Your task to perform on an android device: Search for seafood restaurants on Google Maps Image 0: 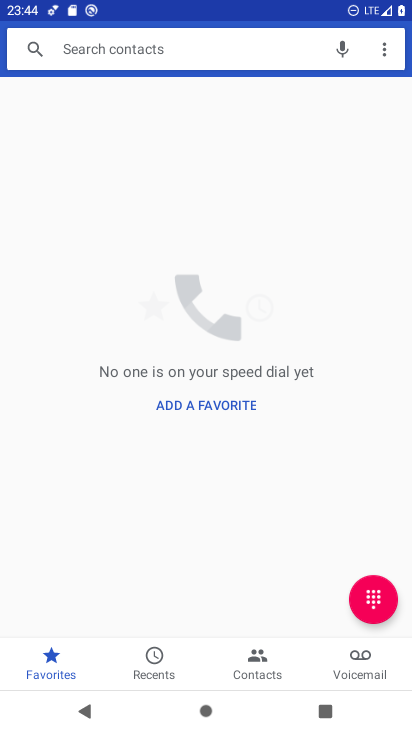
Step 0: press home button
Your task to perform on an android device: Search for seafood restaurants on Google Maps Image 1: 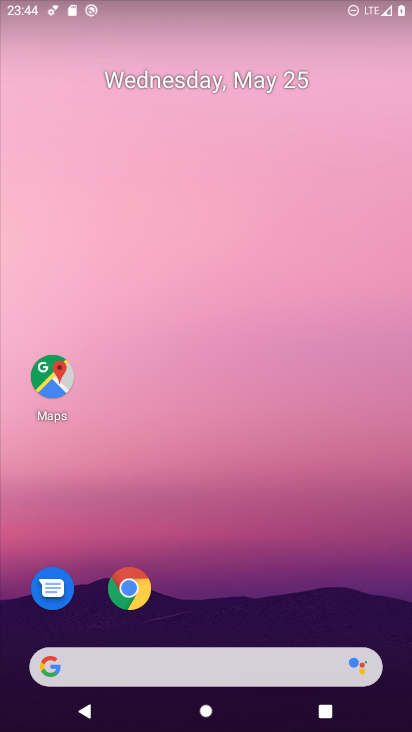
Step 1: click (46, 375)
Your task to perform on an android device: Search for seafood restaurants on Google Maps Image 2: 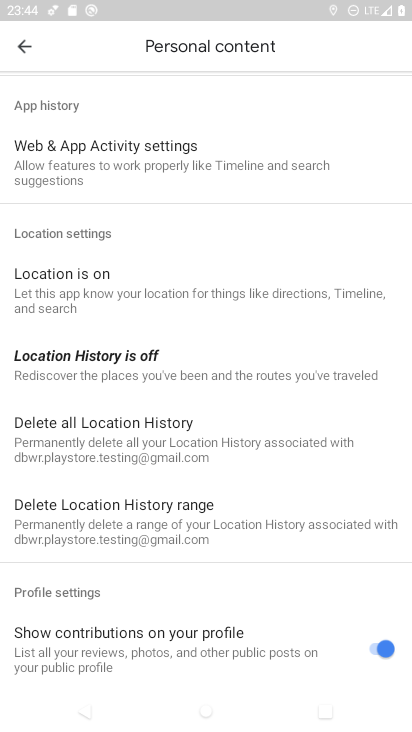
Step 2: click (28, 45)
Your task to perform on an android device: Search for seafood restaurants on Google Maps Image 3: 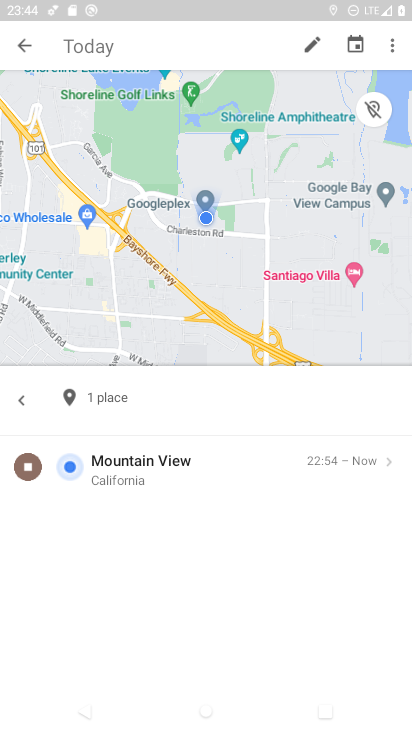
Step 3: click (168, 38)
Your task to perform on an android device: Search for seafood restaurants on Google Maps Image 4: 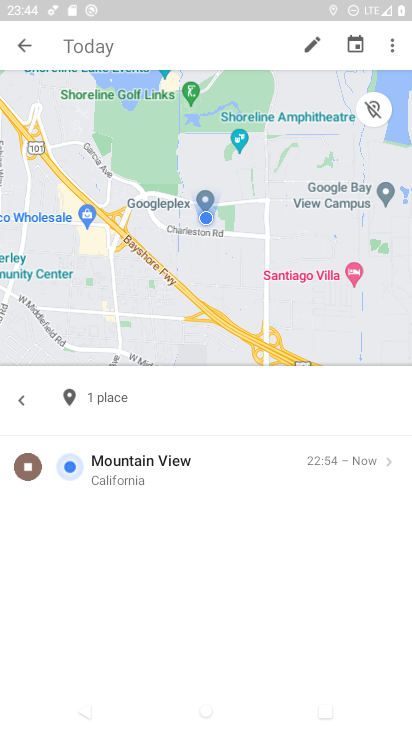
Step 4: click (96, 43)
Your task to perform on an android device: Search for seafood restaurants on Google Maps Image 5: 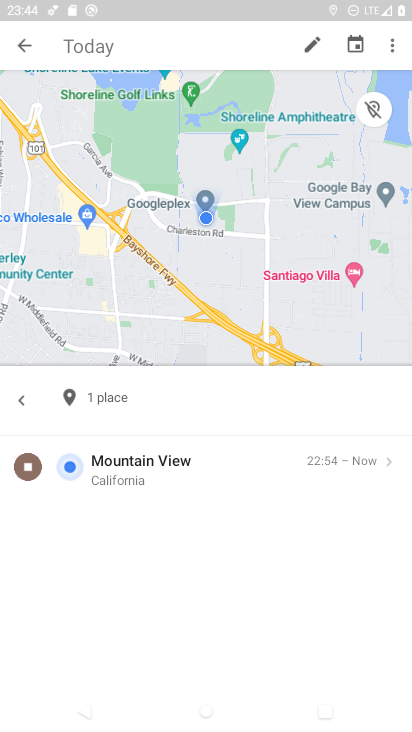
Step 5: click (26, 44)
Your task to perform on an android device: Search for seafood restaurants on Google Maps Image 6: 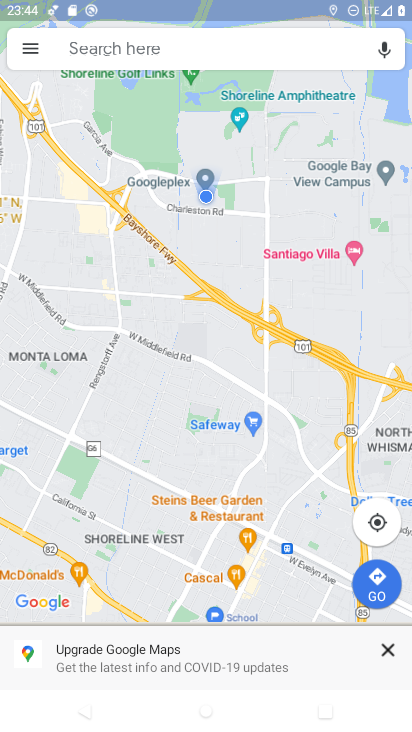
Step 6: click (140, 43)
Your task to perform on an android device: Search for seafood restaurants on Google Maps Image 7: 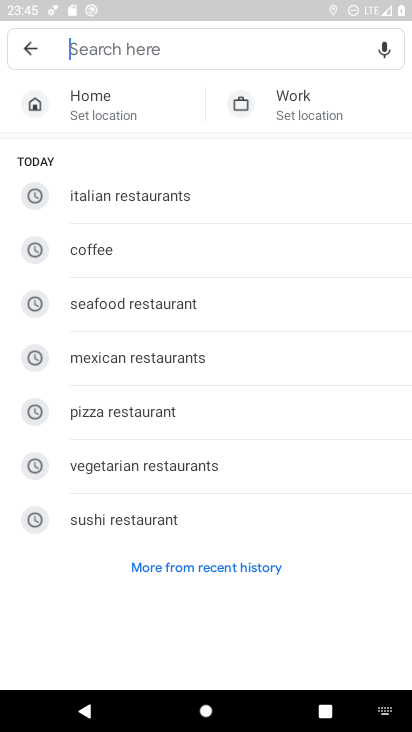
Step 7: click (158, 295)
Your task to perform on an android device: Search for seafood restaurants on Google Maps Image 8: 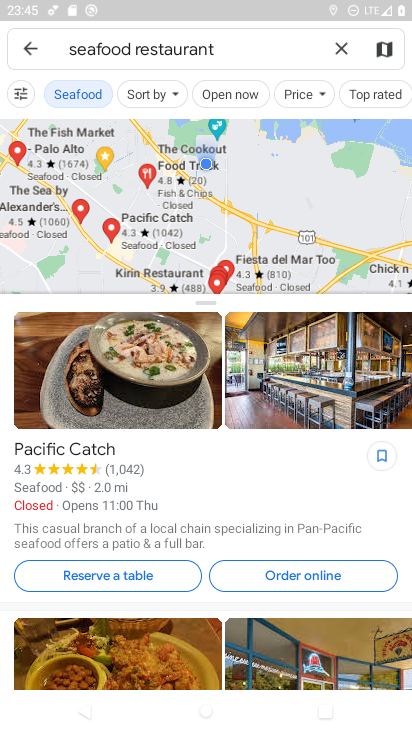
Step 8: task complete